Your task to perform on an android device: Is it going to rain today? Image 0: 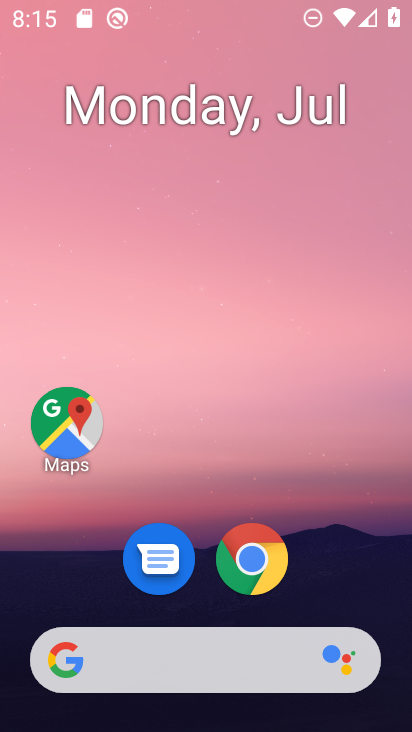
Step 0: click (273, 648)
Your task to perform on an android device: Is it going to rain today? Image 1: 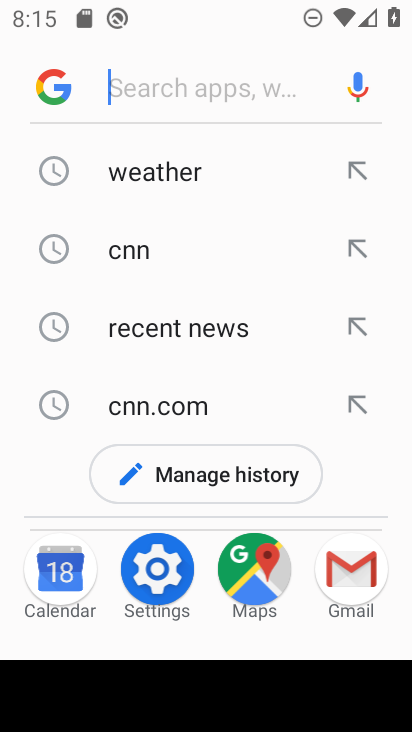
Step 1: click (141, 171)
Your task to perform on an android device: Is it going to rain today? Image 2: 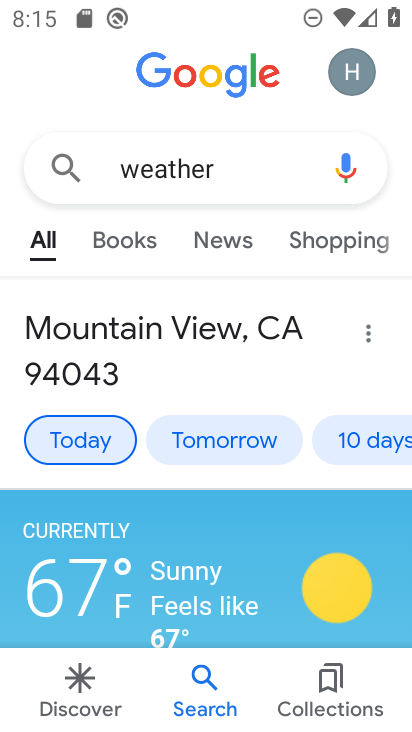
Step 2: task complete